Your task to perform on an android device: What's the news in Japan? Image 0: 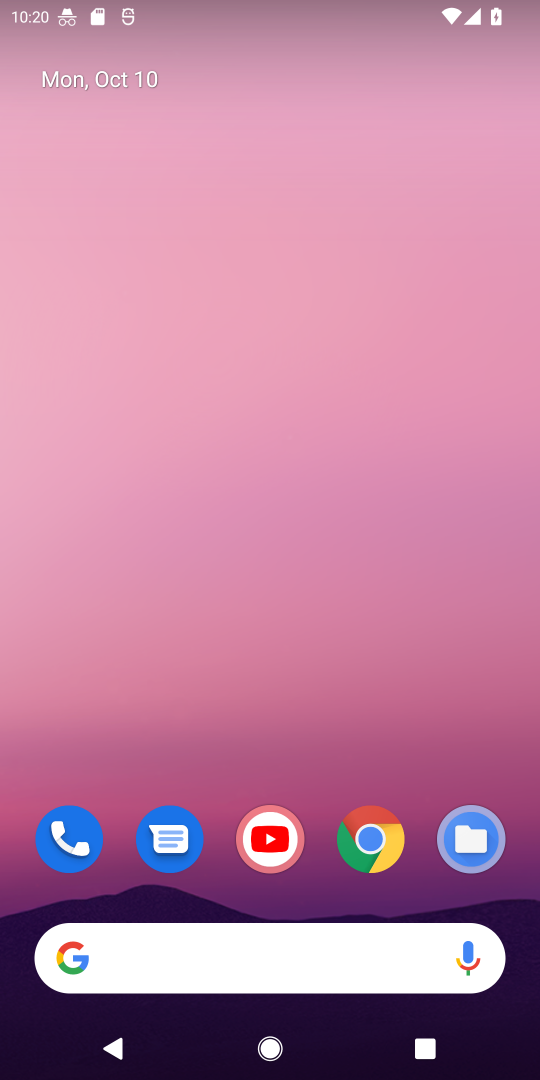
Step 0: drag from (324, 895) to (351, 91)
Your task to perform on an android device: What's the news in Japan? Image 1: 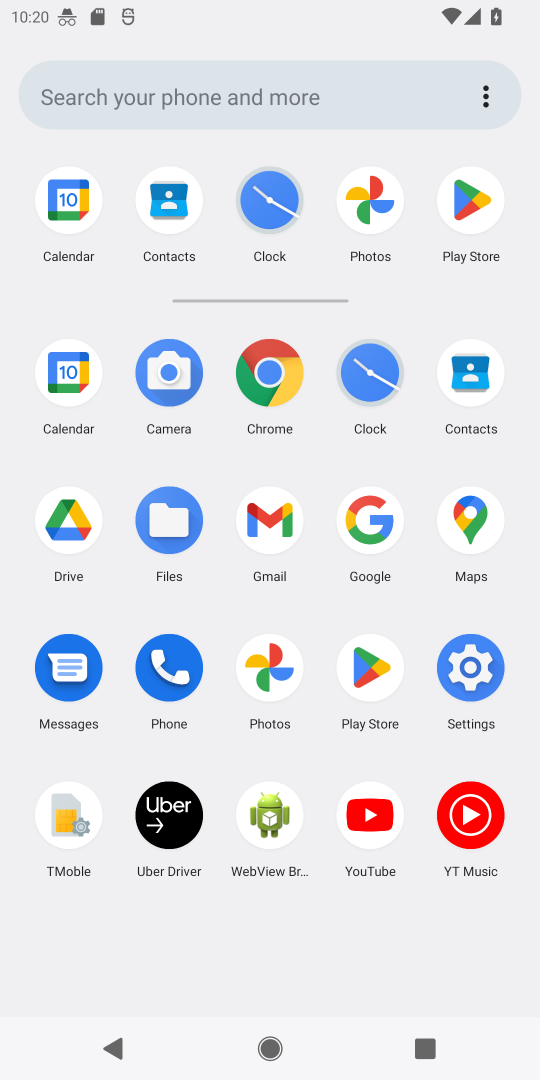
Step 1: click (268, 374)
Your task to perform on an android device: What's the news in Japan? Image 2: 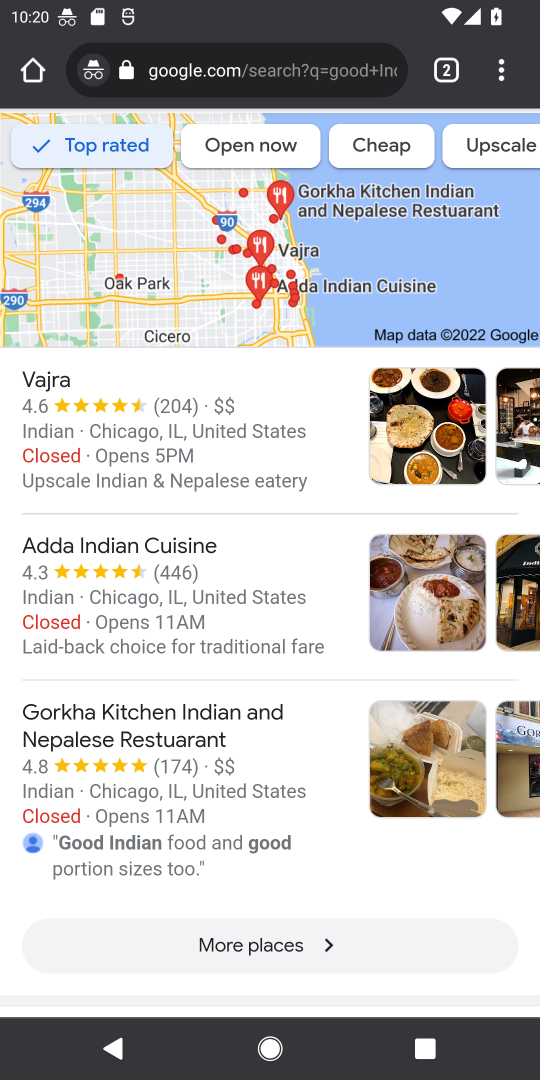
Step 2: click (260, 75)
Your task to perform on an android device: What's the news in Japan? Image 3: 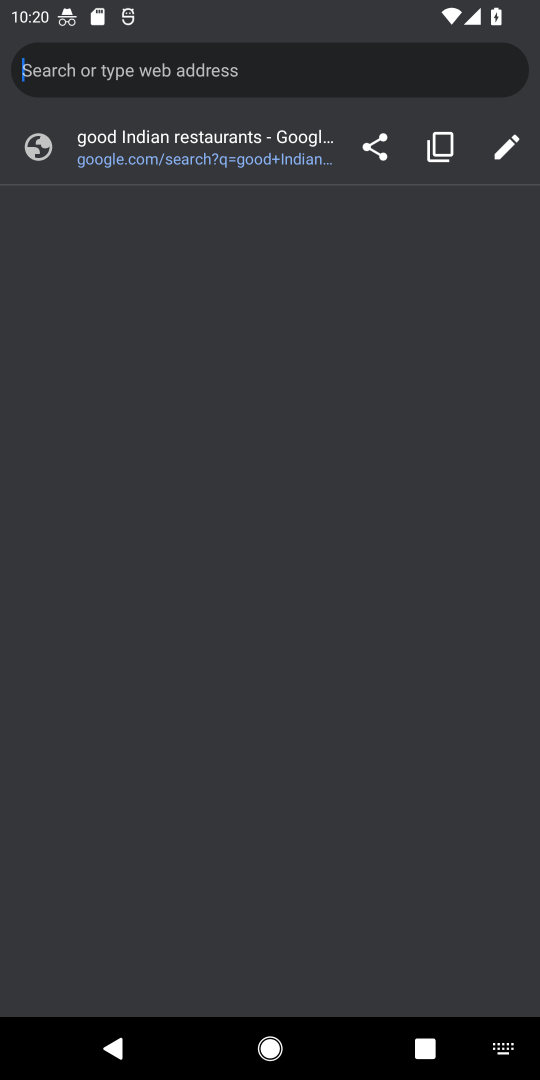
Step 3: type "What's the news in Japan?"
Your task to perform on an android device: What's the news in Japan? Image 4: 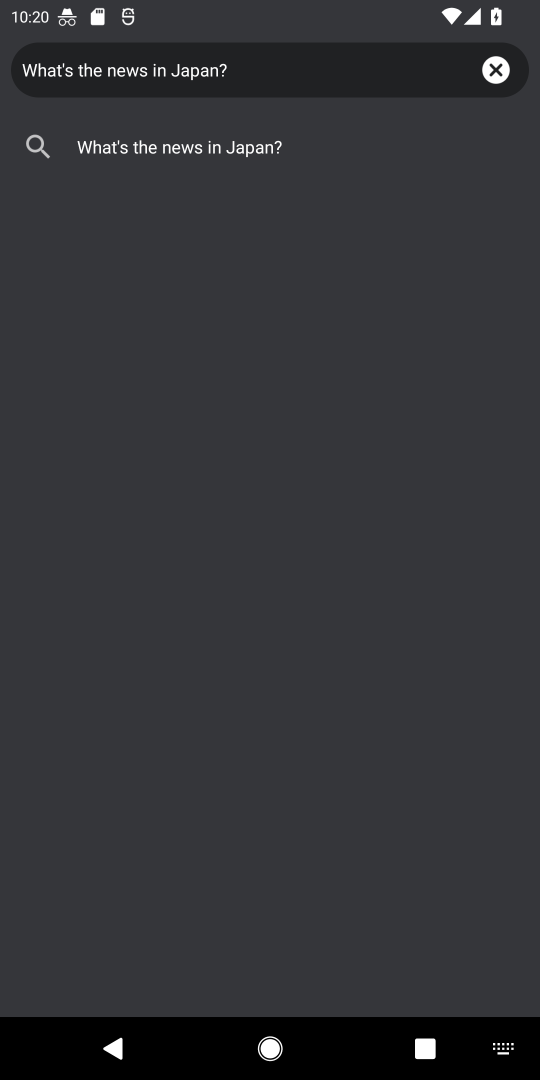
Step 4: press enter
Your task to perform on an android device: What's the news in Japan? Image 5: 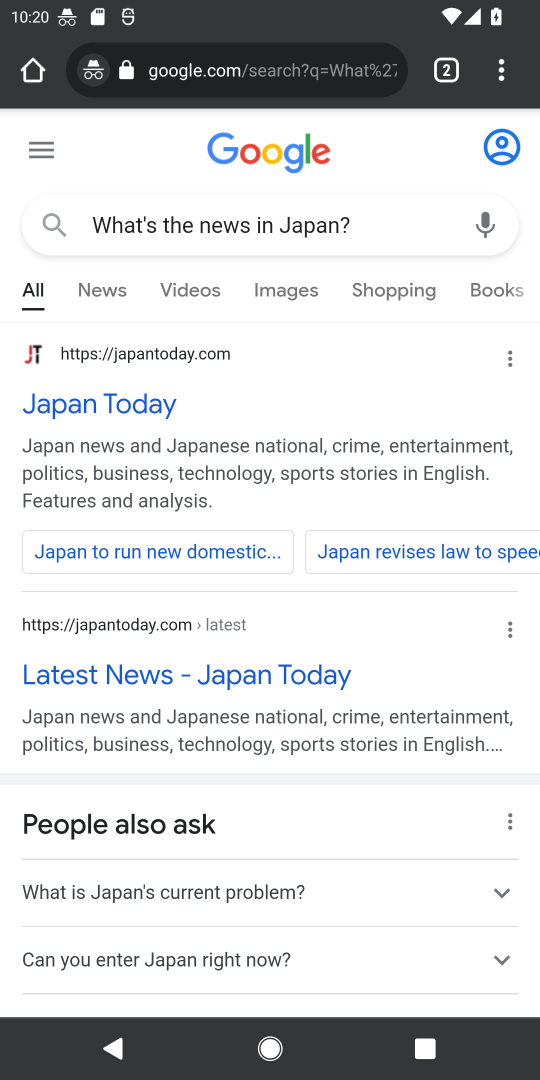
Step 5: click (69, 404)
Your task to perform on an android device: What's the news in Japan? Image 6: 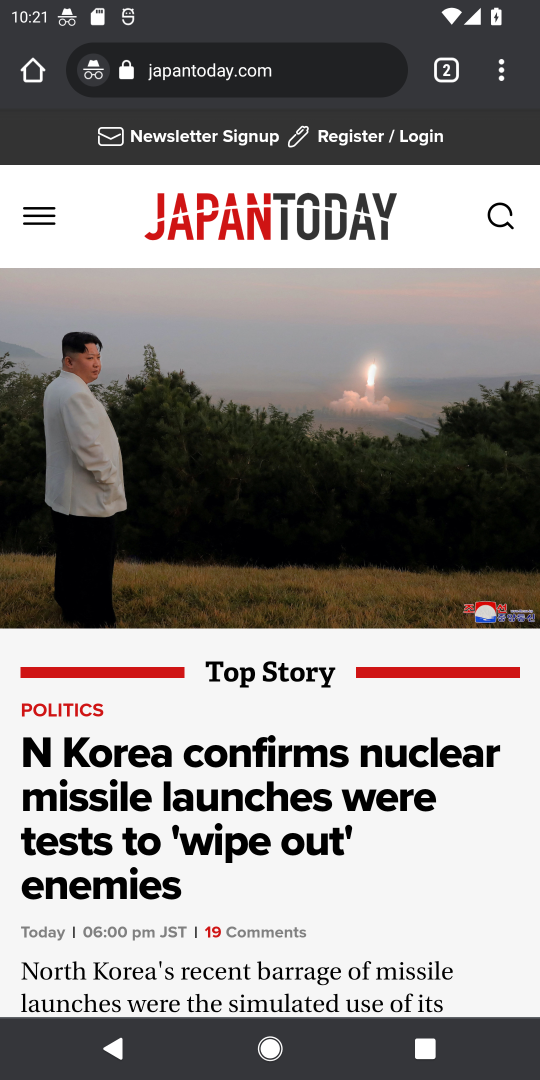
Step 6: task complete